Your task to perform on an android device: What's the weather? Image 0: 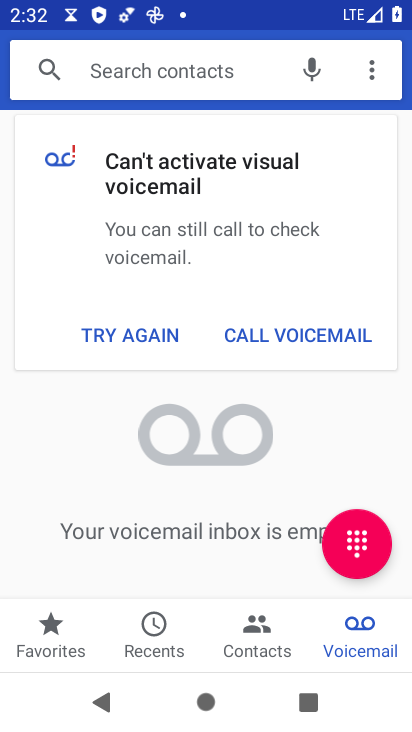
Step 0: press home button
Your task to perform on an android device: What's the weather? Image 1: 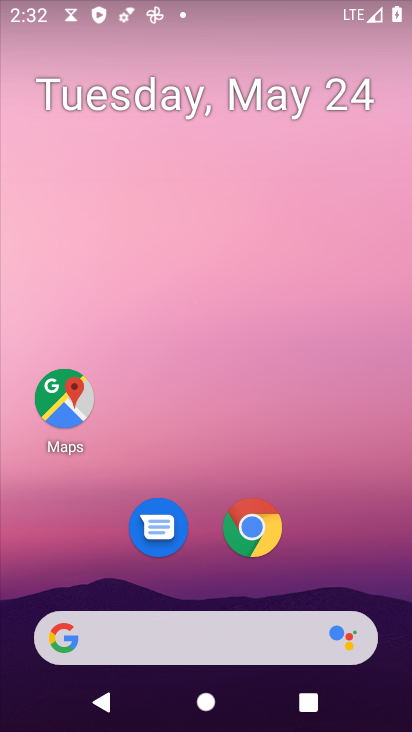
Step 1: click (63, 642)
Your task to perform on an android device: What's the weather? Image 2: 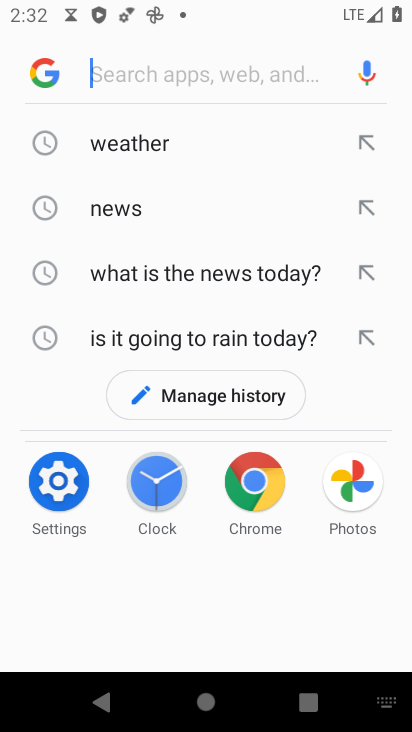
Step 2: click (139, 137)
Your task to perform on an android device: What's the weather? Image 3: 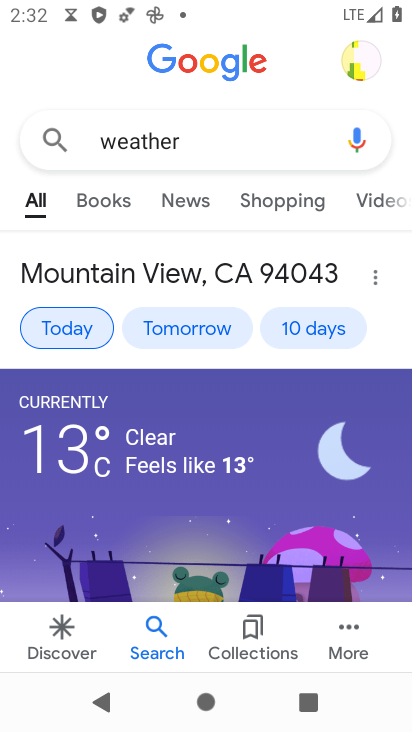
Step 3: task complete